Your task to perform on an android device: delete location history Image 0: 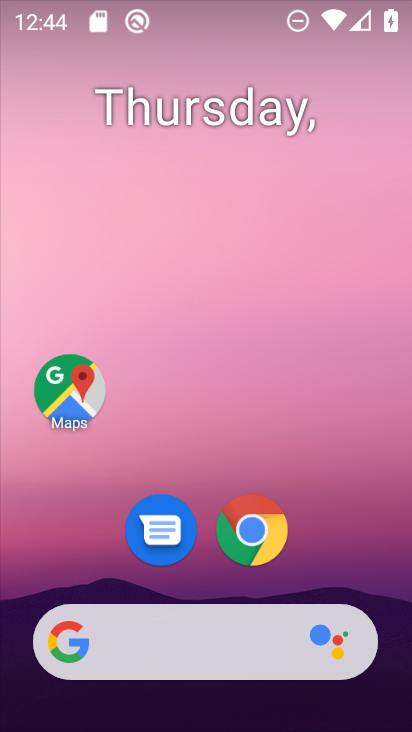
Step 0: click (80, 416)
Your task to perform on an android device: delete location history Image 1: 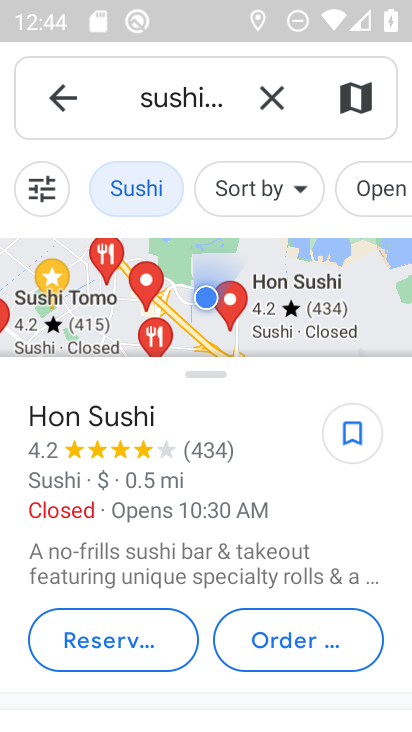
Step 1: click (65, 107)
Your task to perform on an android device: delete location history Image 2: 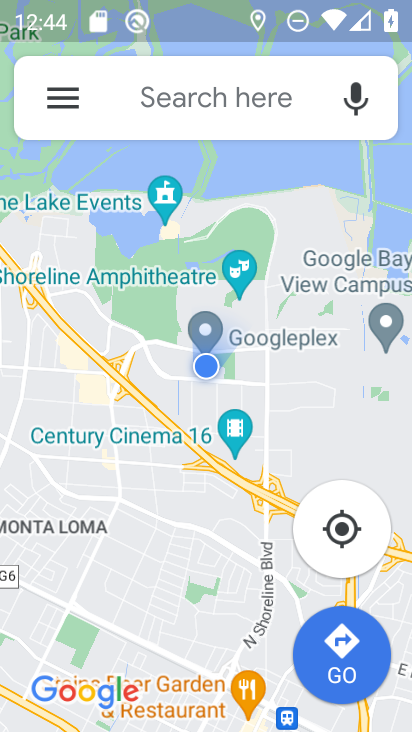
Step 2: click (65, 107)
Your task to perform on an android device: delete location history Image 3: 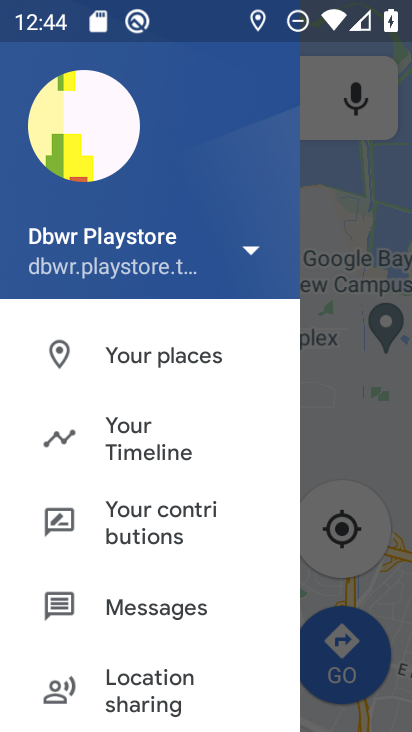
Step 3: click (109, 450)
Your task to perform on an android device: delete location history Image 4: 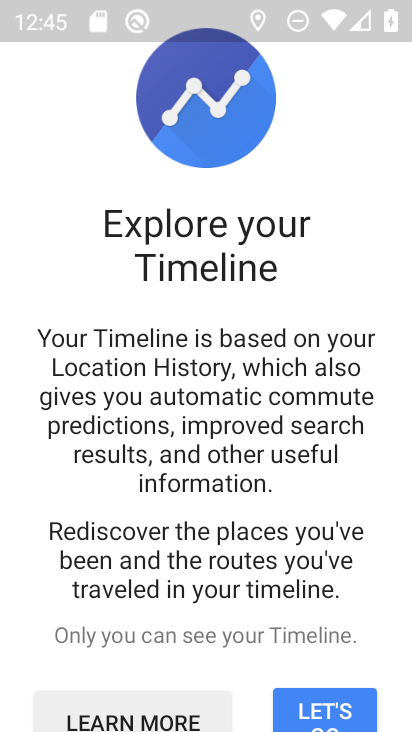
Step 4: click (341, 701)
Your task to perform on an android device: delete location history Image 5: 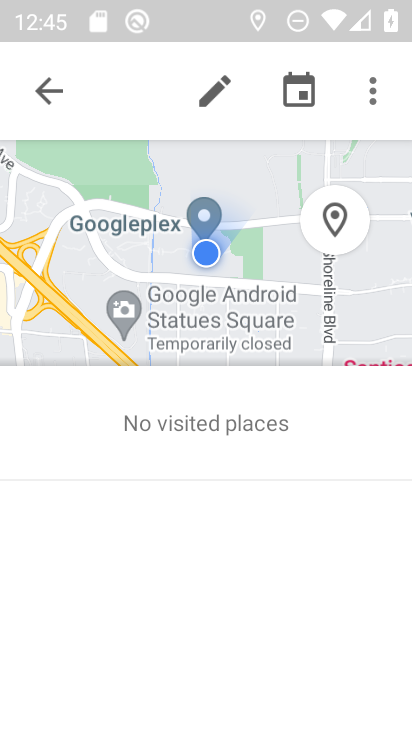
Step 5: click (373, 87)
Your task to perform on an android device: delete location history Image 6: 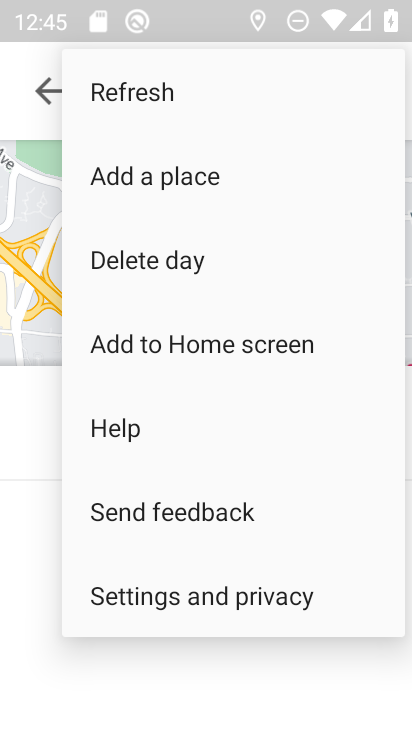
Step 6: click (239, 590)
Your task to perform on an android device: delete location history Image 7: 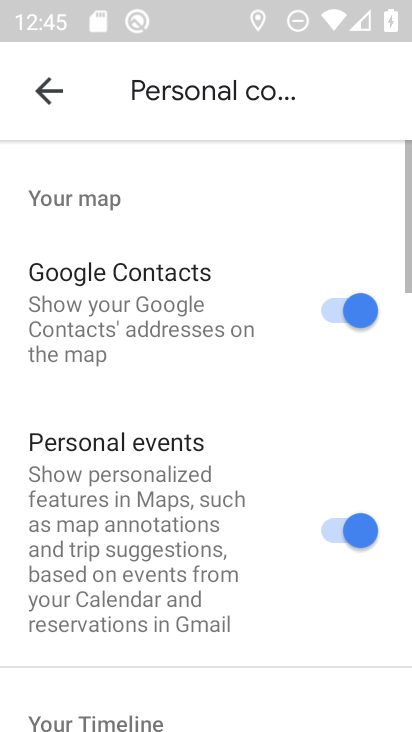
Step 7: drag from (240, 634) to (241, 140)
Your task to perform on an android device: delete location history Image 8: 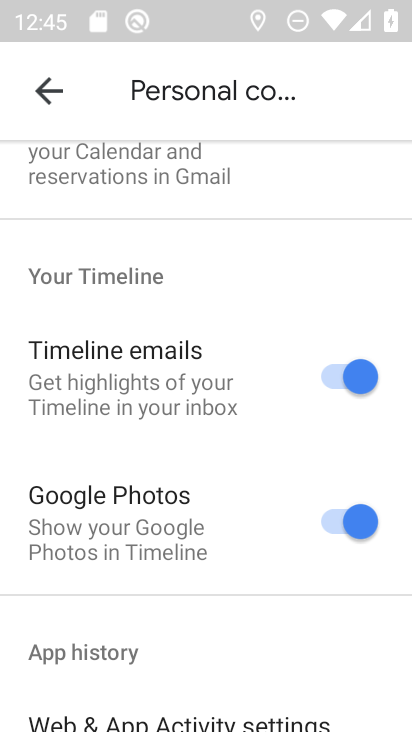
Step 8: drag from (250, 607) to (246, 20)
Your task to perform on an android device: delete location history Image 9: 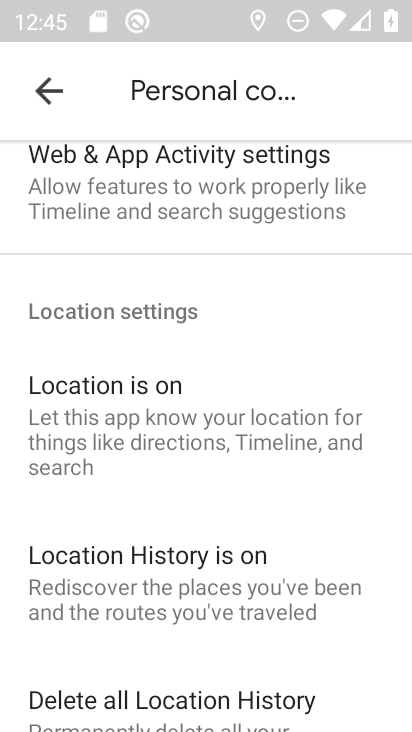
Step 9: click (237, 704)
Your task to perform on an android device: delete location history Image 10: 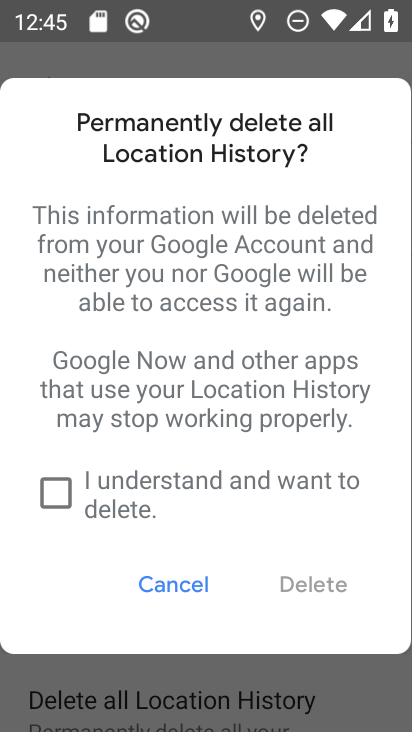
Step 10: click (56, 506)
Your task to perform on an android device: delete location history Image 11: 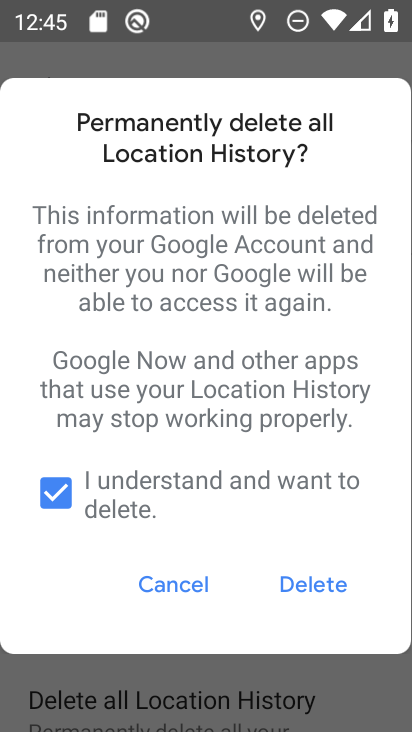
Step 11: click (315, 586)
Your task to perform on an android device: delete location history Image 12: 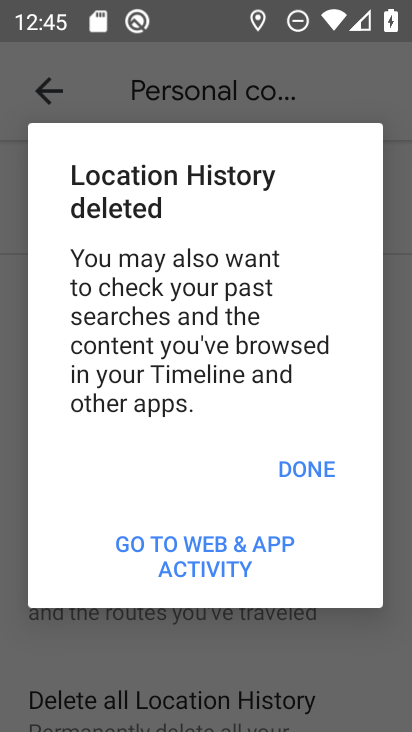
Step 12: click (305, 469)
Your task to perform on an android device: delete location history Image 13: 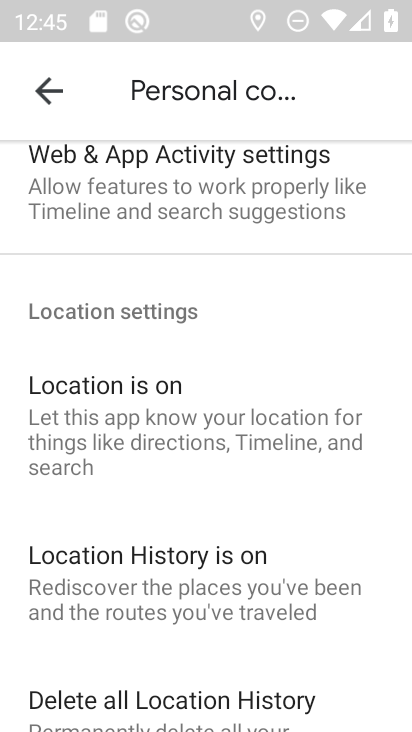
Step 13: task complete